Your task to perform on an android device: What's a good restaurant in Las Vegas? Image 0: 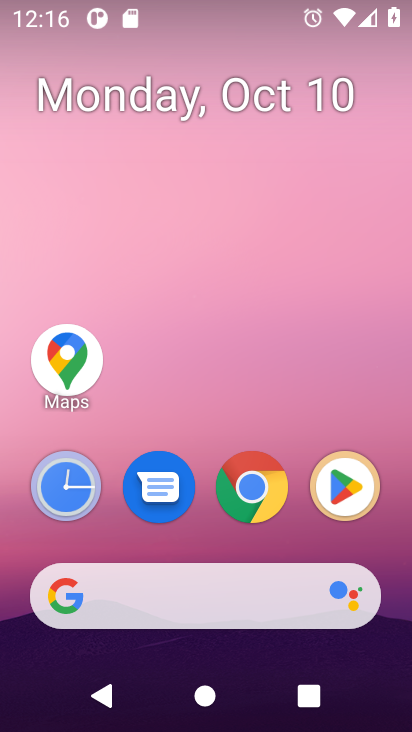
Step 0: drag from (223, 559) to (192, 16)
Your task to perform on an android device: What's a good restaurant in Las Vegas? Image 1: 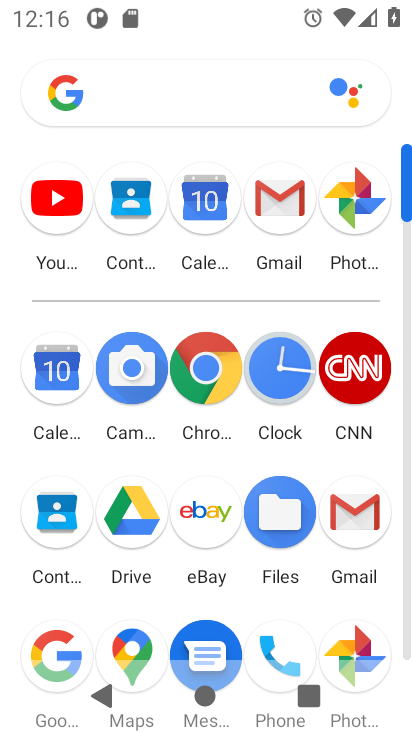
Step 1: click (49, 649)
Your task to perform on an android device: What's a good restaurant in Las Vegas? Image 2: 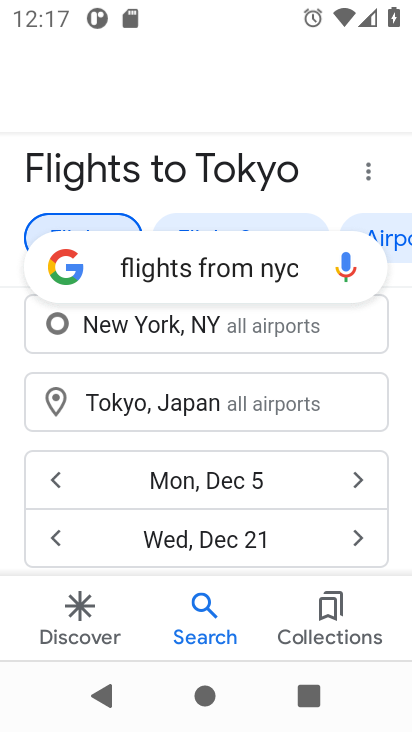
Step 2: click (183, 262)
Your task to perform on an android device: What's a good restaurant in Las Vegas? Image 3: 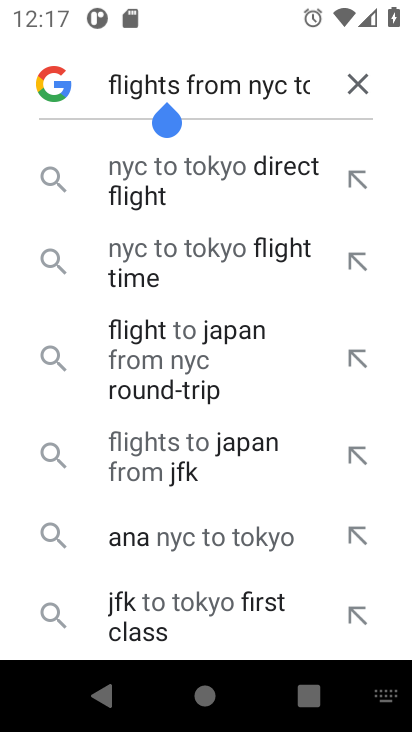
Step 3: click (364, 71)
Your task to perform on an android device: What's a good restaurant in Las Vegas? Image 4: 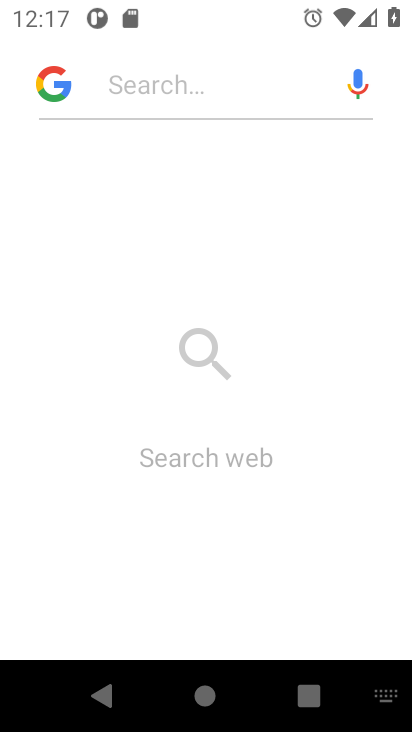
Step 4: type "What's a good restaurant in Las Vegas?"
Your task to perform on an android device: What's a good restaurant in Las Vegas? Image 5: 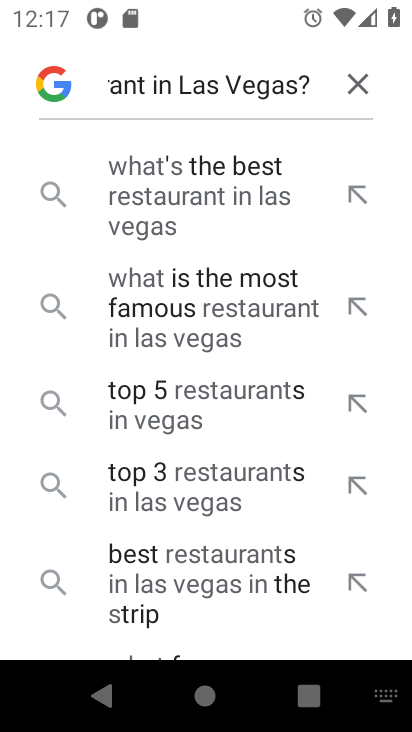
Step 5: click (235, 166)
Your task to perform on an android device: What's a good restaurant in Las Vegas? Image 6: 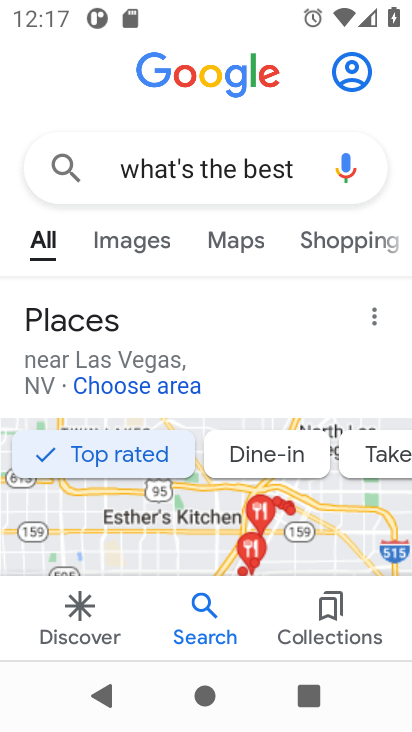
Step 6: task complete